Your task to perform on an android device: see creations saved in the google photos Image 0: 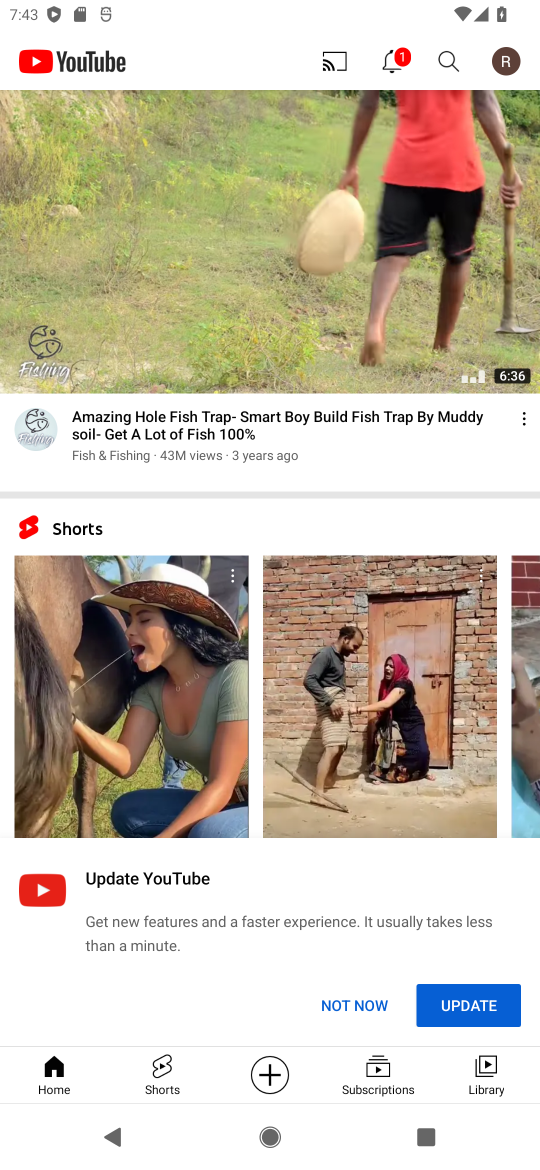
Step 0: press home button
Your task to perform on an android device: see creations saved in the google photos Image 1: 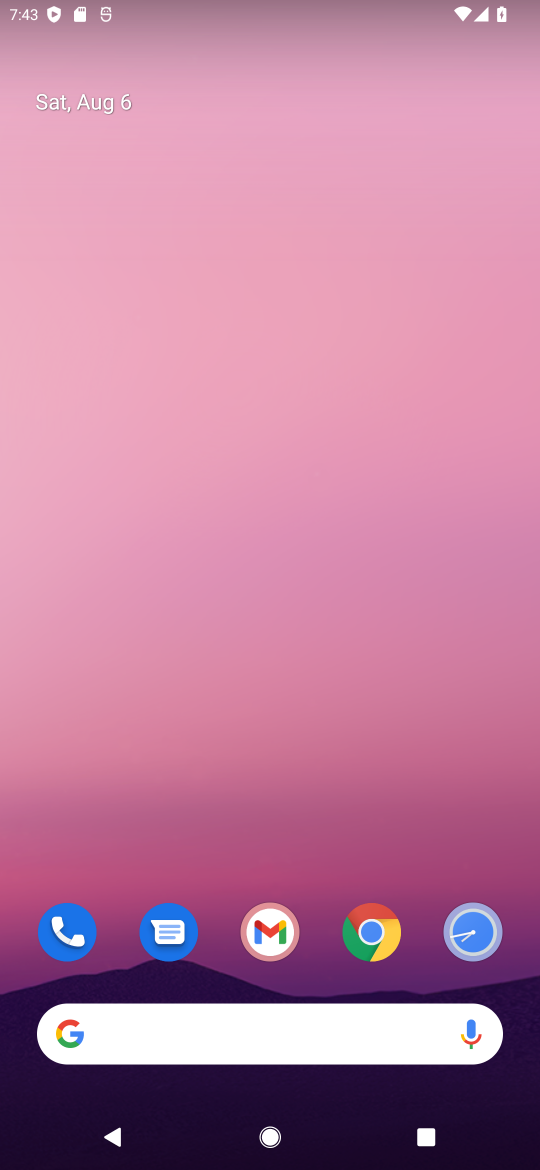
Step 1: drag from (307, 1019) to (501, 213)
Your task to perform on an android device: see creations saved in the google photos Image 2: 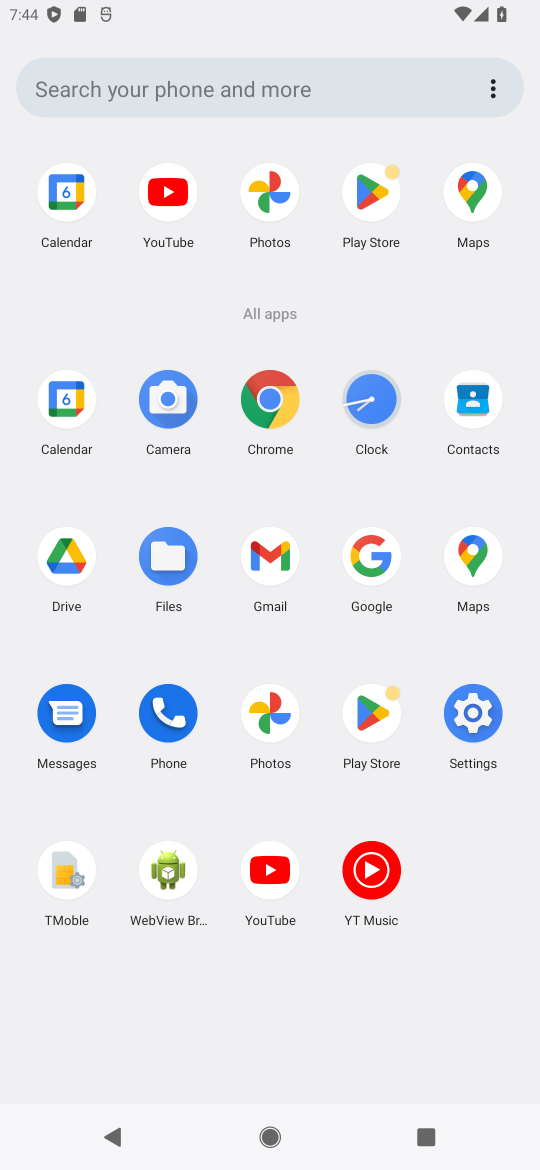
Step 2: click (276, 712)
Your task to perform on an android device: see creations saved in the google photos Image 3: 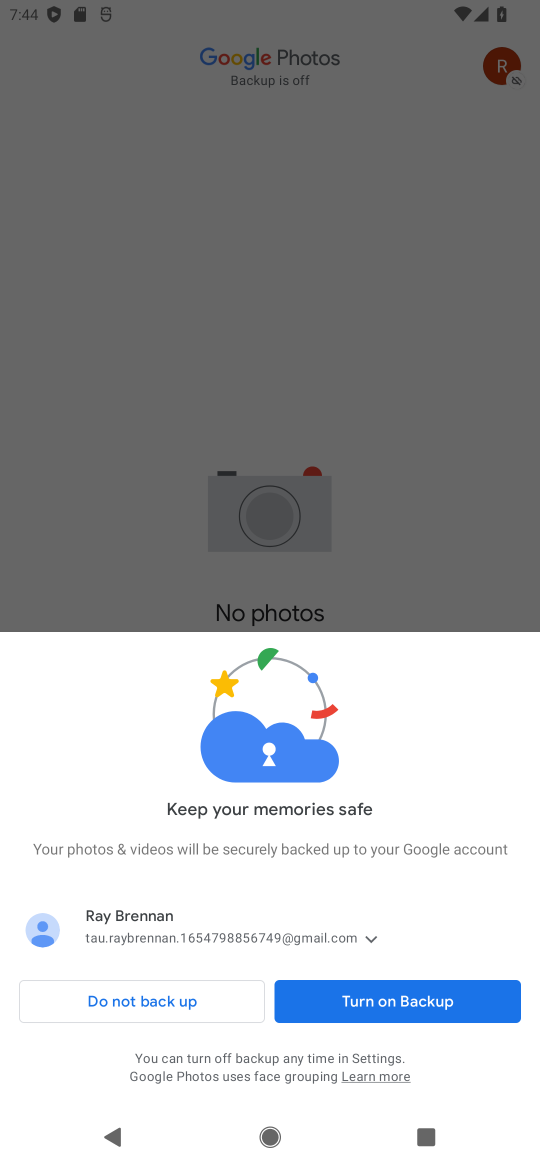
Step 3: click (359, 1000)
Your task to perform on an android device: see creations saved in the google photos Image 4: 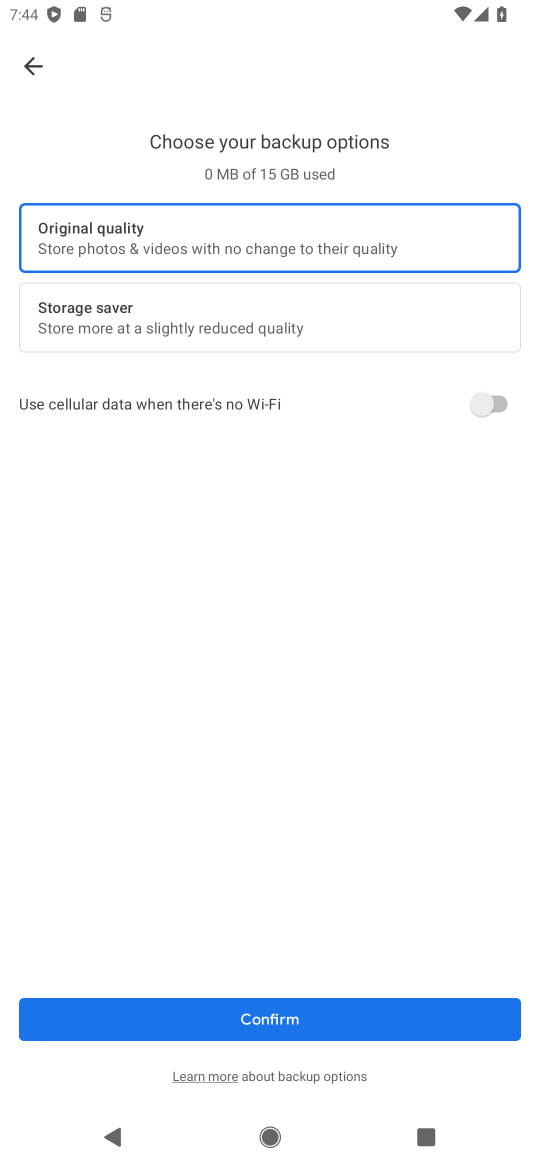
Step 4: click (349, 1007)
Your task to perform on an android device: see creations saved in the google photos Image 5: 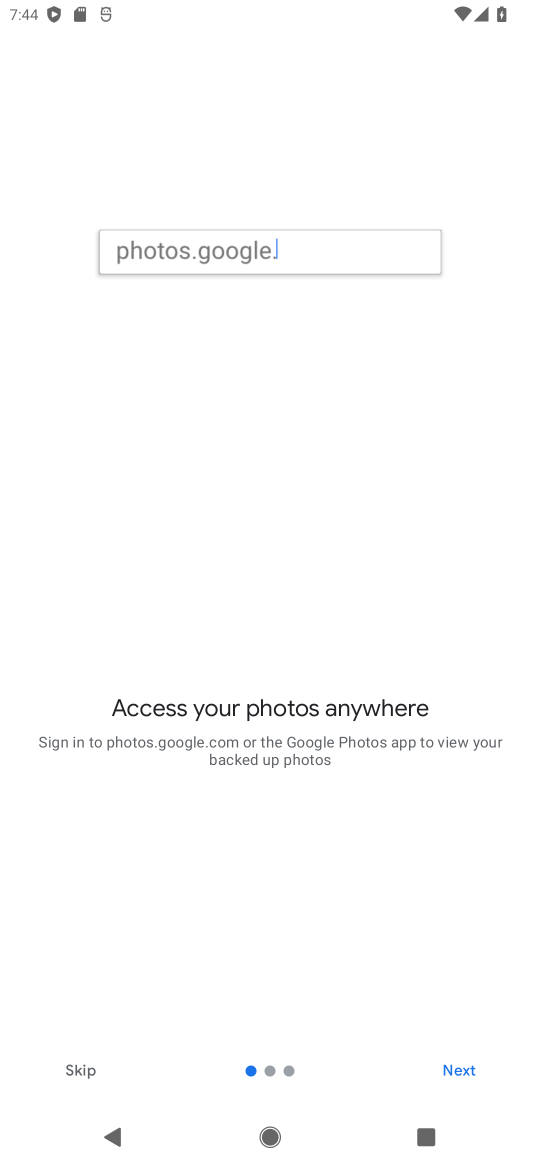
Step 5: click (459, 1073)
Your task to perform on an android device: see creations saved in the google photos Image 6: 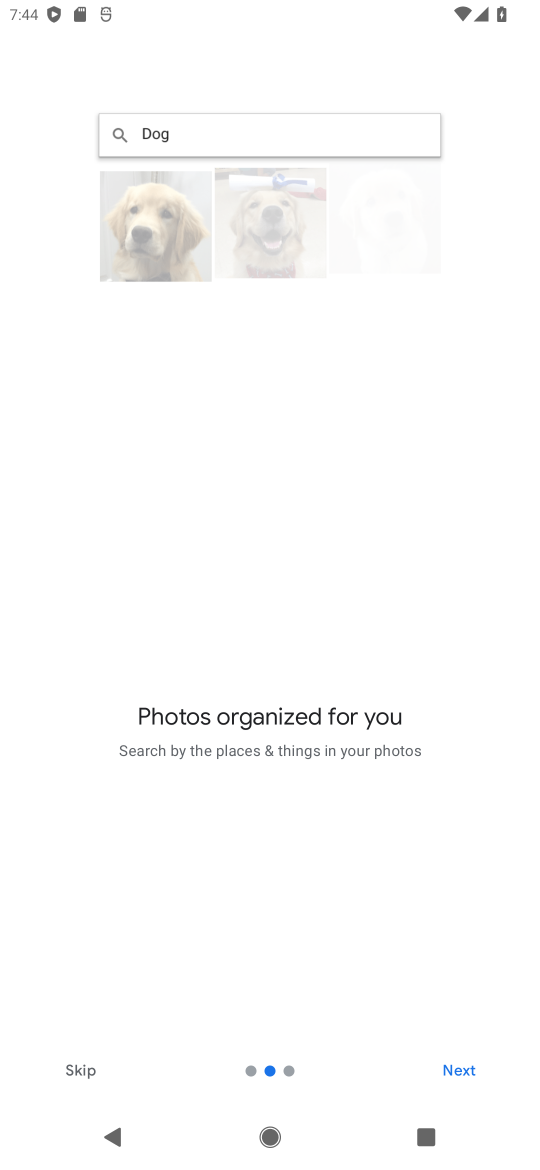
Step 6: click (459, 1074)
Your task to perform on an android device: see creations saved in the google photos Image 7: 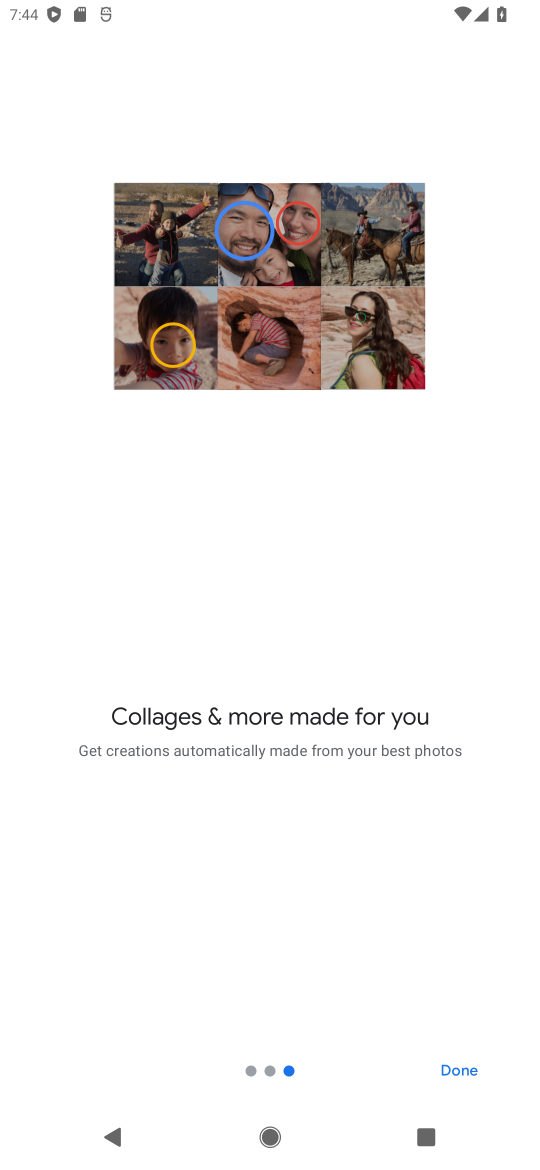
Step 7: click (459, 1074)
Your task to perform on an android device: see creations saved in the google photos Image 8: 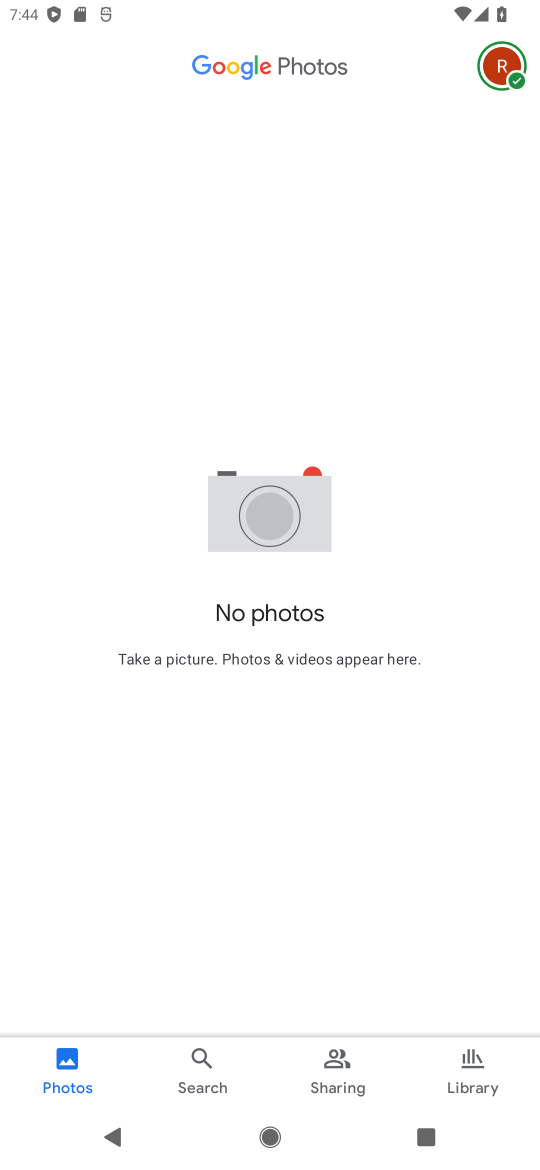
Step 8: click (200, 1065)
Your task to perform on an android device: see creations saved in the google photos Image 9: 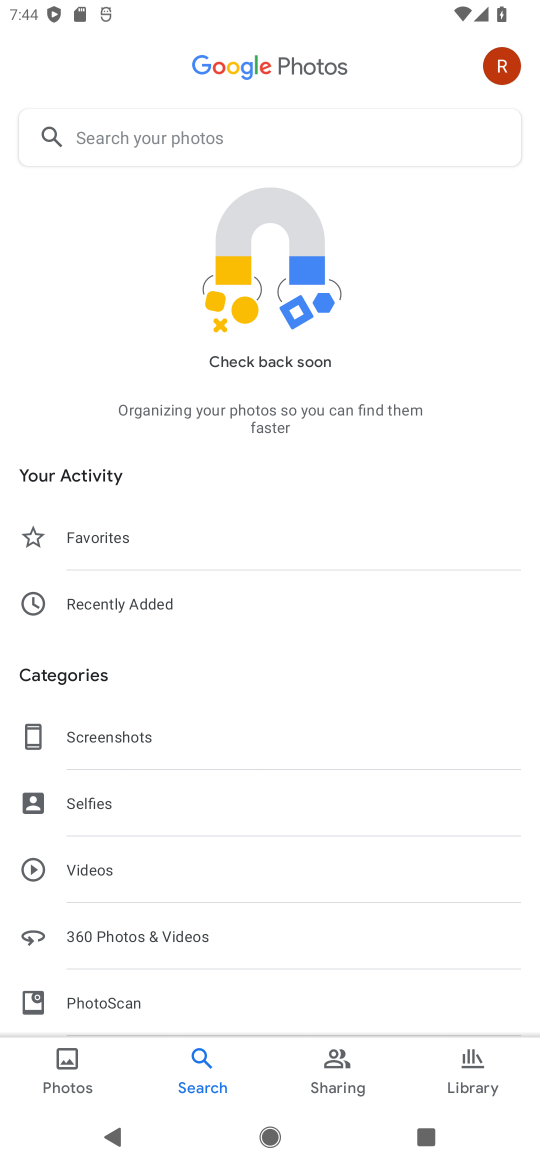
Step 9: drag from (206, 819) to (428, 315)
Your task to perform on an android device: see creations saved in the google photos Image 10: 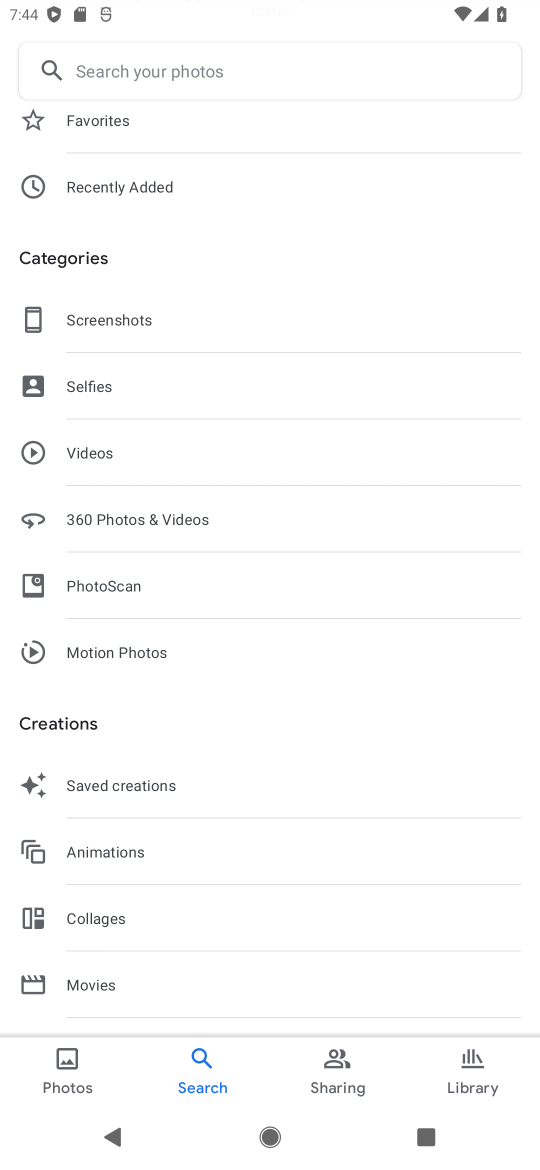
Step 10: click (141, 793)
Your task to perform on an android device: see creations saved in the google photos Image 11: 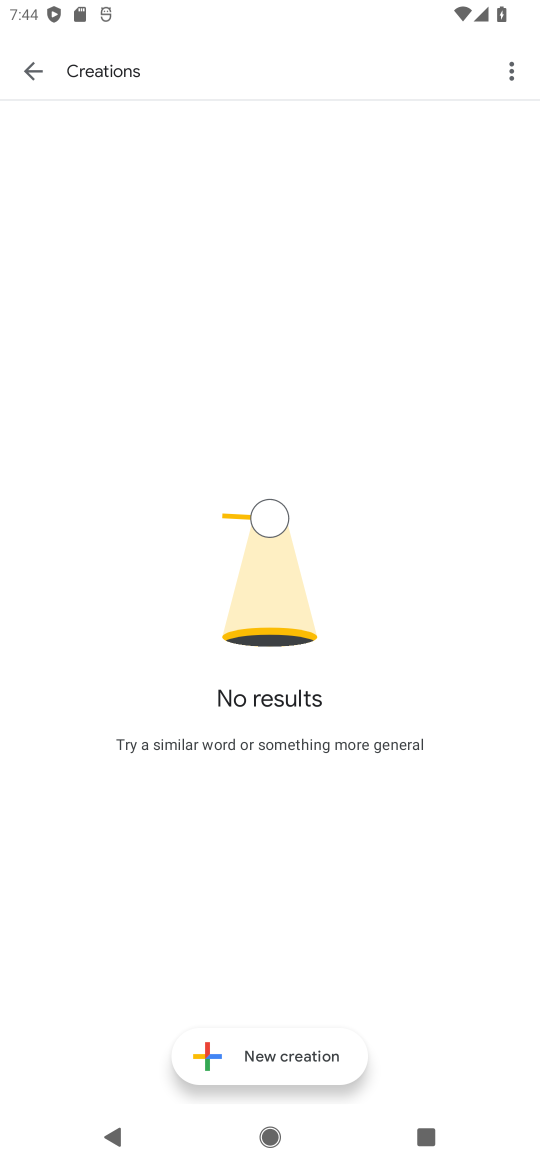
Step 11: task complete